Your task to perform on an android device: Toggle the flashlight Image 0: 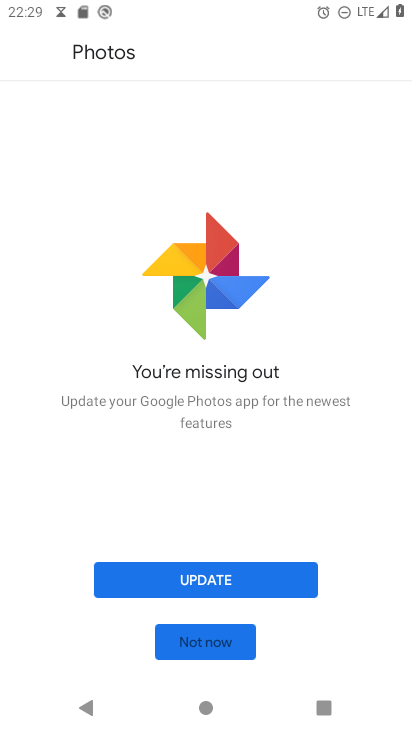
Step 0: press home button
Your task to perform on an android device: Toggle the flashlight Image 1: 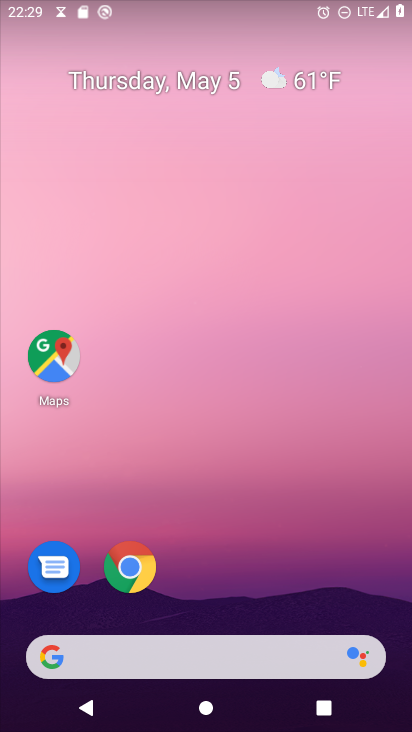
Step 1: drag from (211, 727) to (185, 206)
Your task to perform on an android device: Toggle the flashlight Image 2: 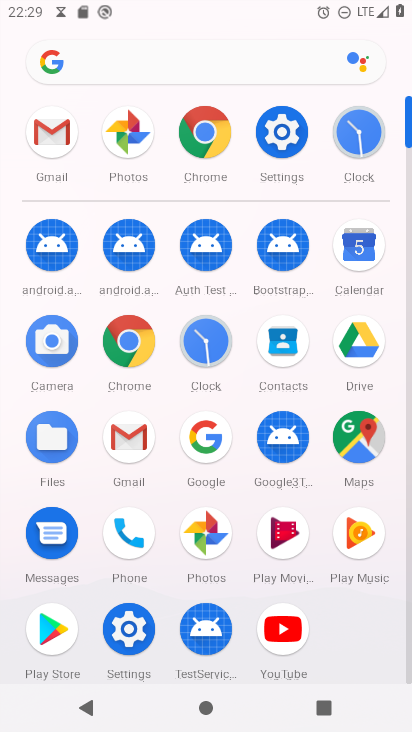
Step 2: click (136, 631)
Your task to perform on an android device: Toggle the flashlight Image 3: 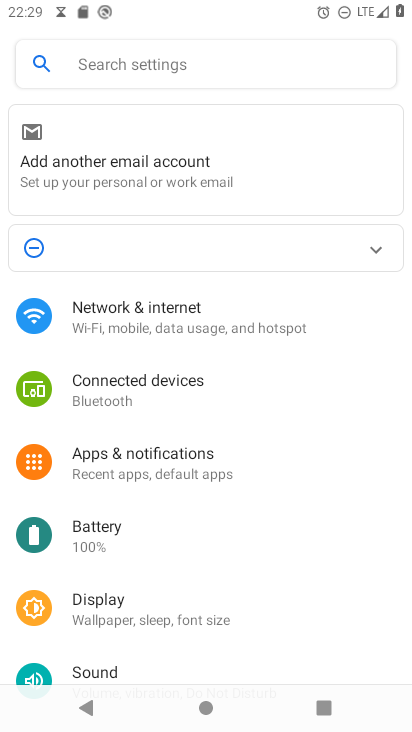
Step 3: task complete